Your task to perform on an android device: delete the emails in spam in the gmail app Image 0: 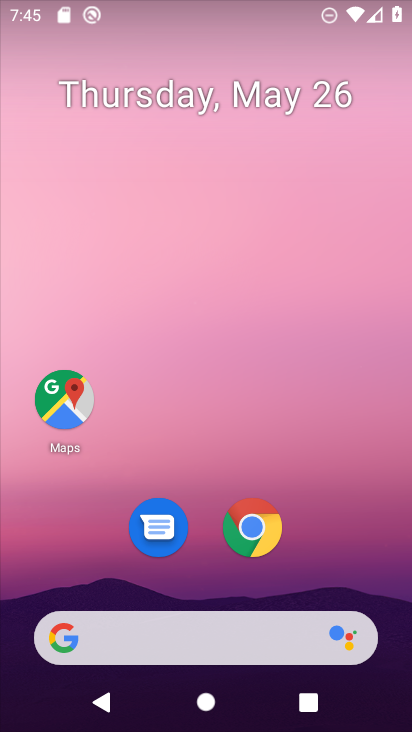
Step 0: press home button
Your task to perform on an android device: delete the emails in spam in the gmail app Image 1: 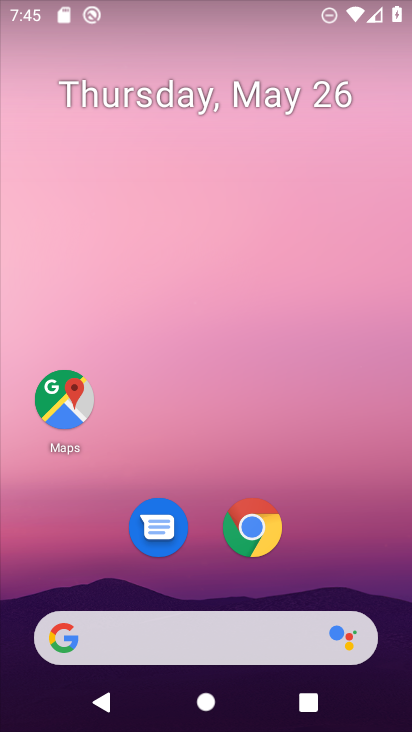
Step 1: drag from (20, 605) to (239, 158)
Your task to perform on an android device: delete the emails in spam in the gmail app Image 2: 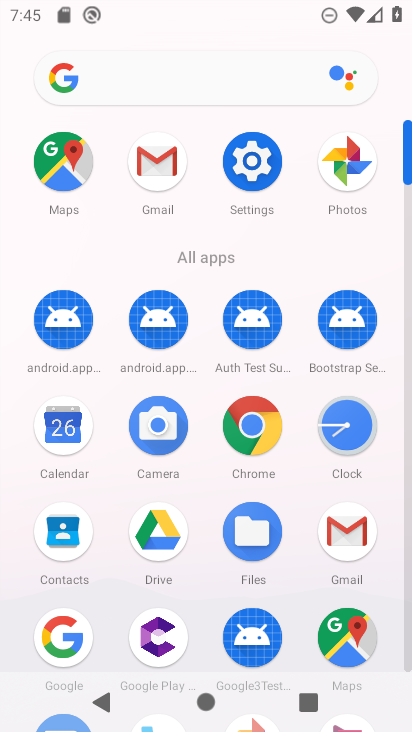
Step 2: click (170, 157)
Your task to perform on an android device: delete the emails in spam in the gmail app Image 3: 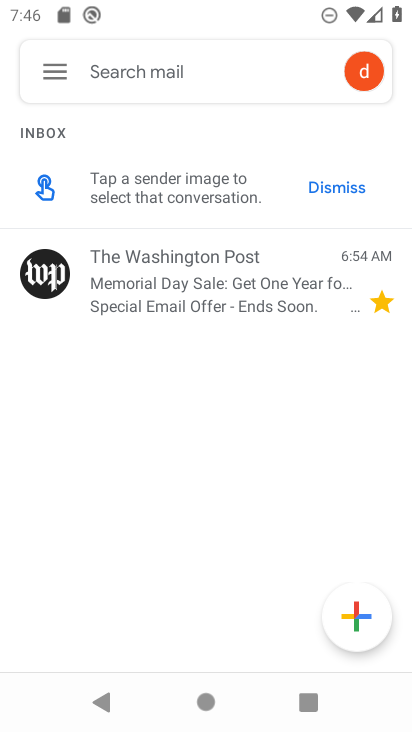
Step 3: click (45, 73)
Your task to perform on an android device: delete the emails in spam in the gmail app Image 4: 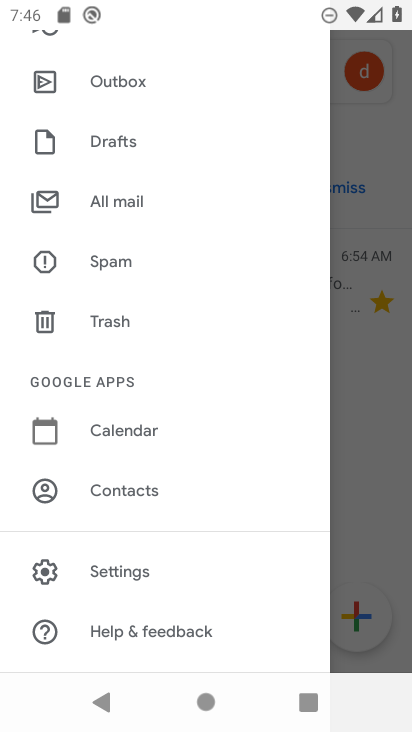
Step 4: click (124, 268)
Your task to perform on an android device: delete the emails in spam in the gmail app Image 5: 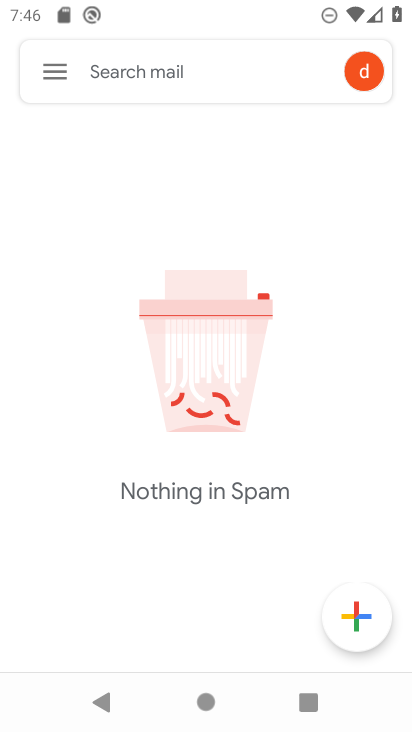
Step 5: task complete